Your task to perform on an android device: clear all cookies in the chrome app Image 0: 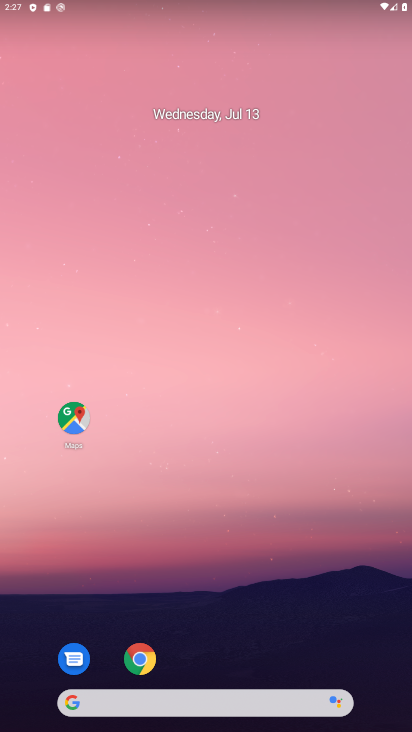
Step 0: press home button
Your task to perform on an android device: clear all cookies in the chrome app Image 1: 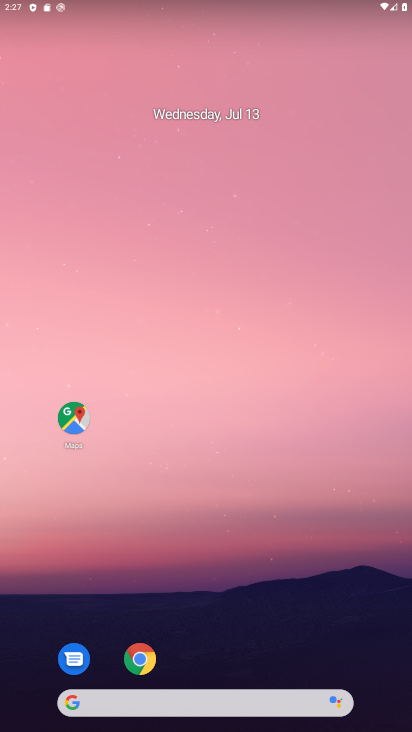
Step 1: click (263, 19)
Your task to perform on an android device: clear all cookies in the chrome app Image 2: 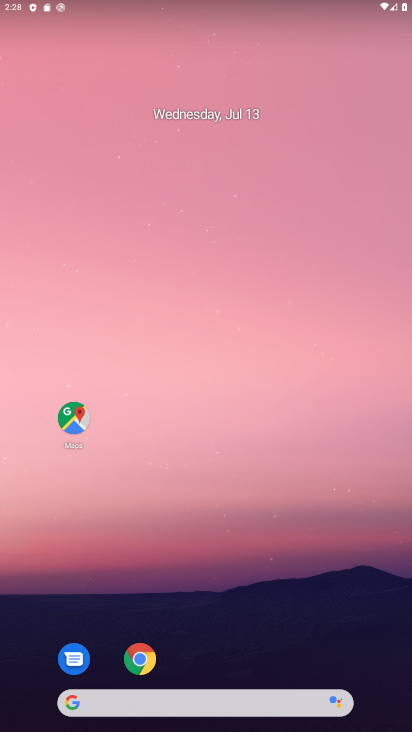
Step 2: click (144, 659)
Your task to perform on an android device: clear all cookies in the chrome app Image 3: 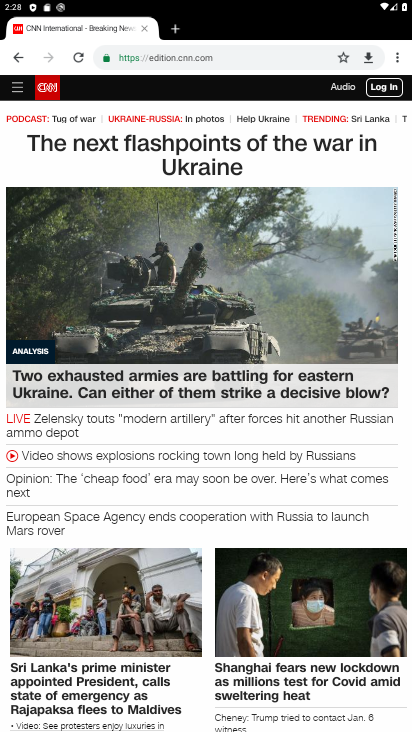
Step 3: click (398, 56)
Your task to perform on an android device: clear all cookies in the chrome app Image 4: 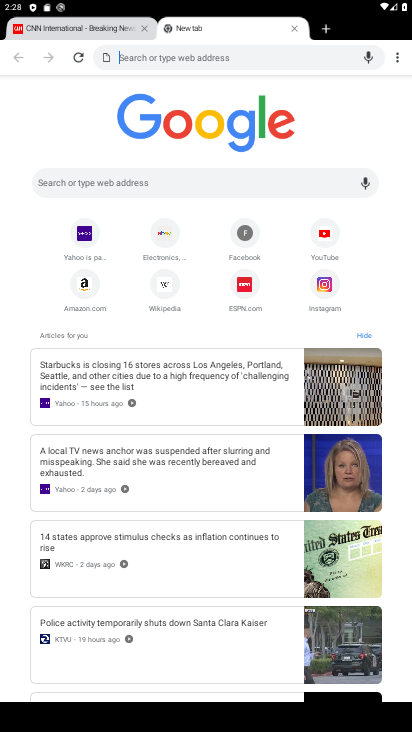
Step 4: click (396, 53)
Your task to perform on an android device: clear all cookies in the chrome app Image 5: 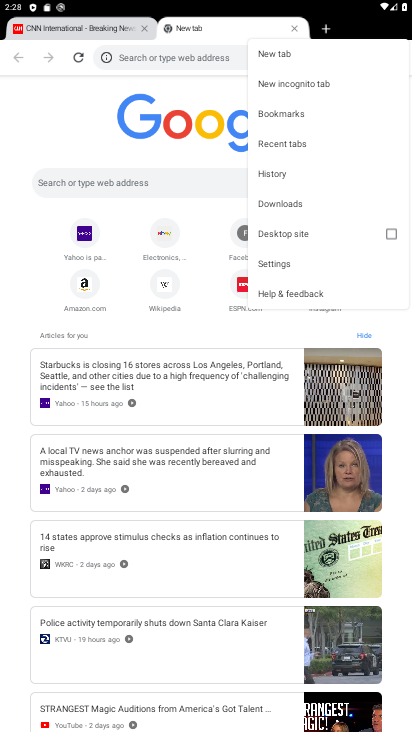
Step 5: click (287, 173)
Your task to perform on an android device: clear all cookies in the chrome app Image 6: 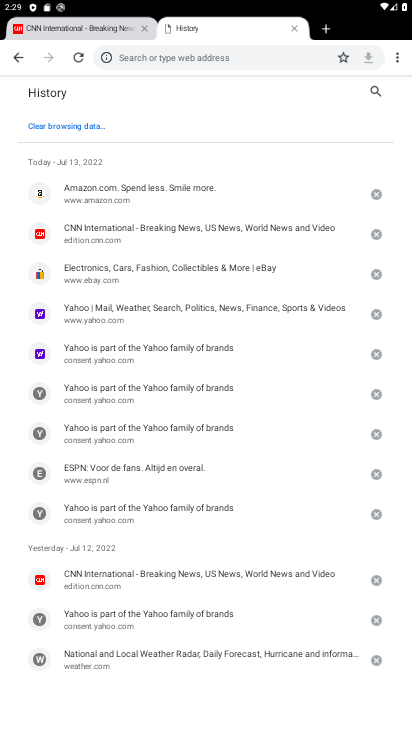
Step 6: click (80, 127)
Your task to perform on an android device: clear all cookies in the chrome app Image 7: 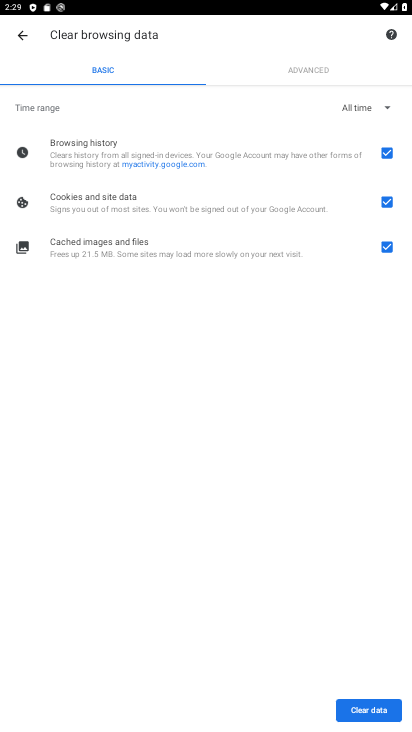
Step 7: click (389, 149)
Your task to perform on an android device: clear all cookies in the chrome app Image 8: 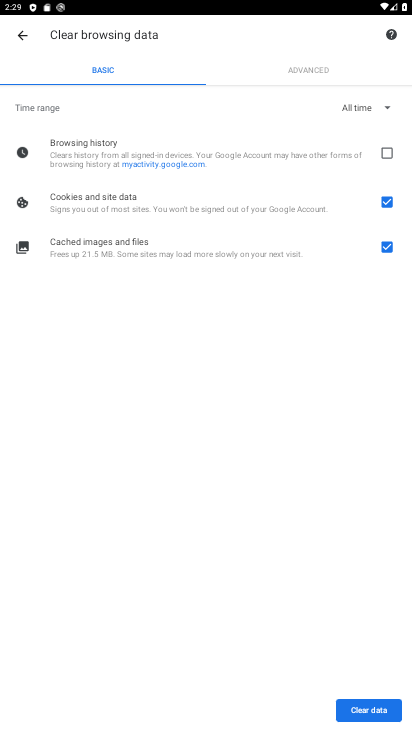
Step 8: click (387, 245)
Your task to perform on an android device: clear all cookies in the chrome app Image 9: 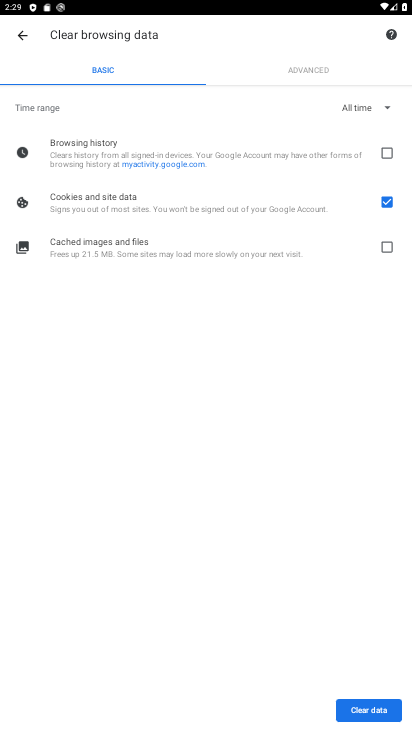
Step 9: click (374, 706)
Your task to perform on an android device: clear all cookies in the chrome app Image 10: 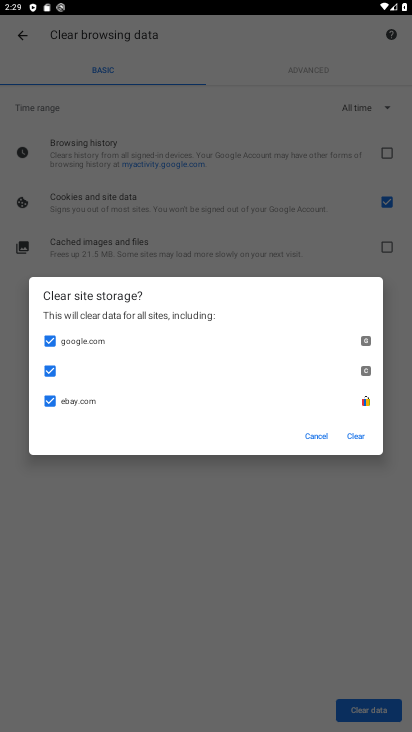
Step 10: click (359, 436)
Your task to perform on an android device: clear all cookies in the chrome app Image 11: 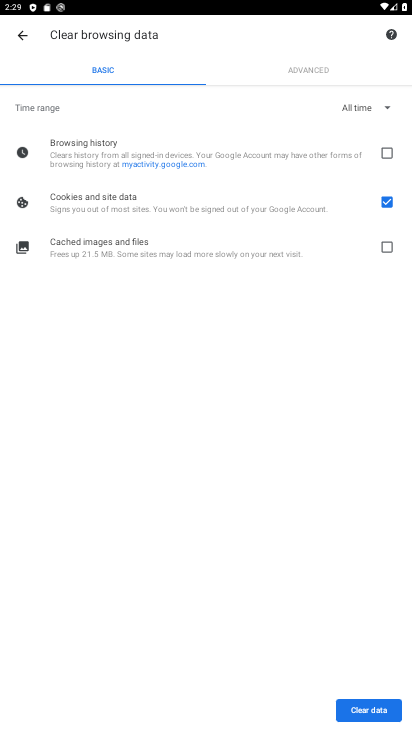
Step 11: task complete